Your task to perform on an android device: set default search engine in the chrome app Image 0: 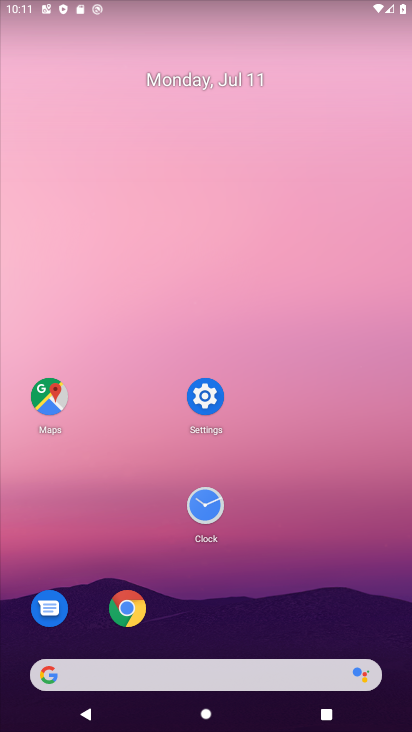
Step 0: click (141, 608)
Your task to perform on an android device: set default search engine in the chrome app Image 1: 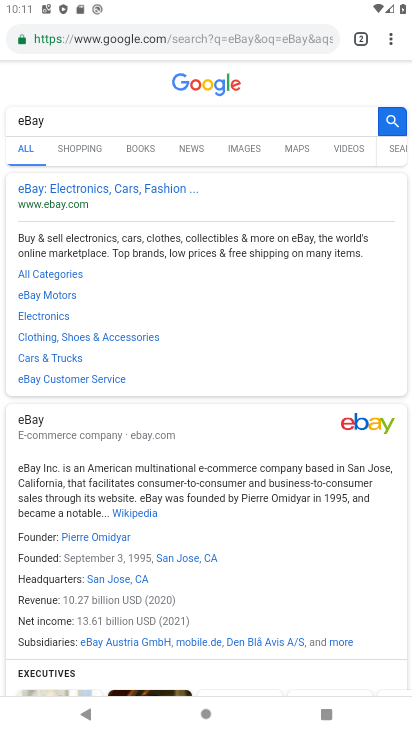
Step 1: click (389, 33)
Your task to perform on an android device: set default search engine in the chrome app Image 2: 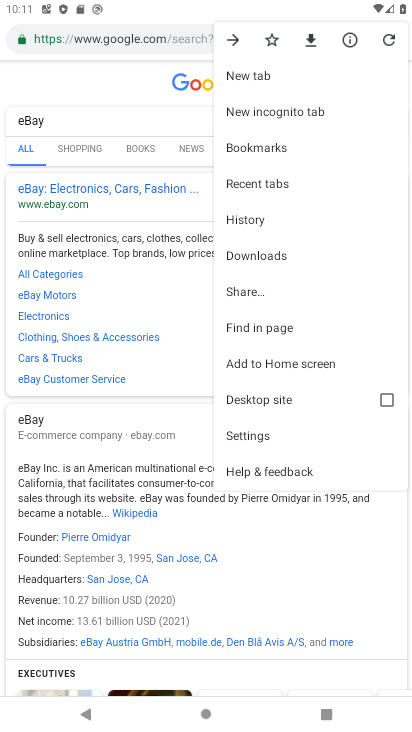
Step 2: click (249, 440)
Your task to perform on an android device: set default search engine in the chrome app Image 3: 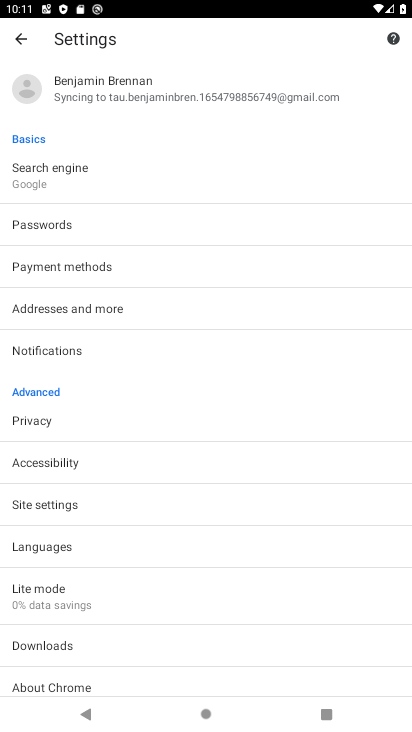
Step 3: click (33, 179)
Your task to perform on an android device: set default search engine in the chrome app Image 4: 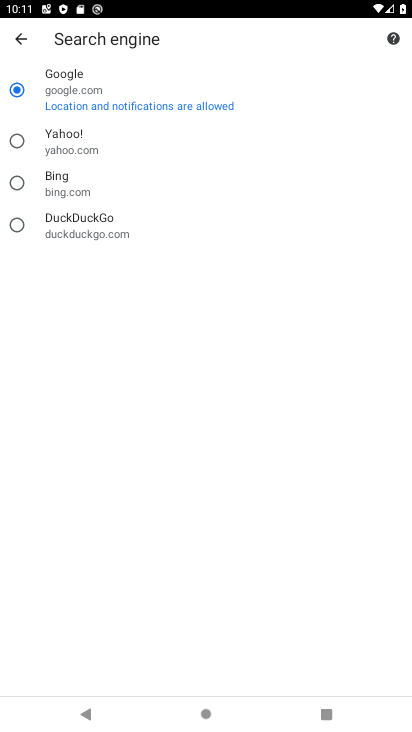
Step 4: task complete